Your task to perform on an android device: Open maps Image 0: 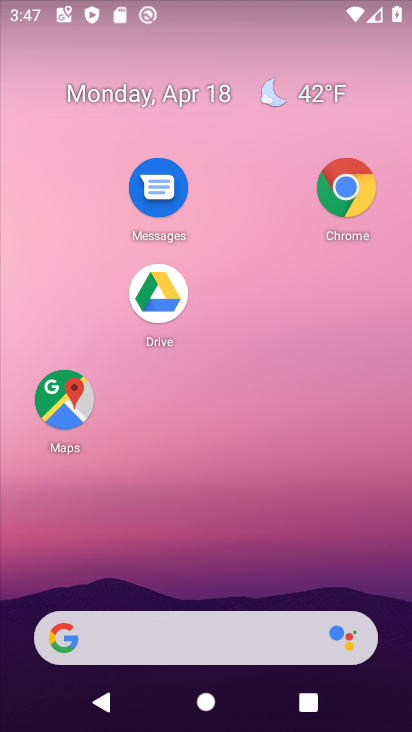
Step 0: click (79, 399)
Your task to perform on an android device: Open maps Image 1: 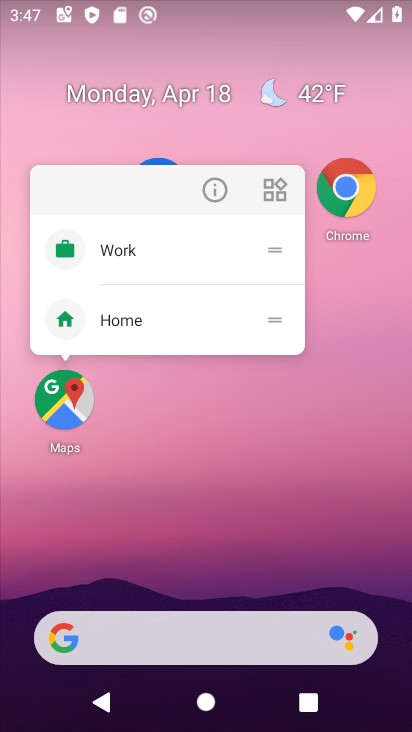
Step 1: click (79, 399)
Your task to perform on an android device: Open maps Image 2: 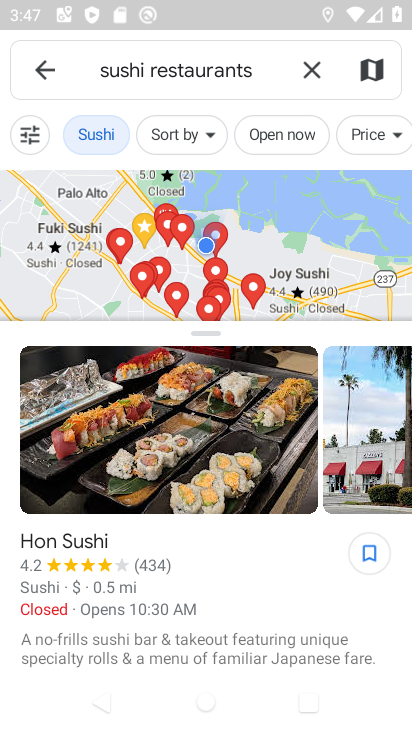
Step 2: task complete